Your task to perform on an android device: Do I have any events this weekend? Image 0: 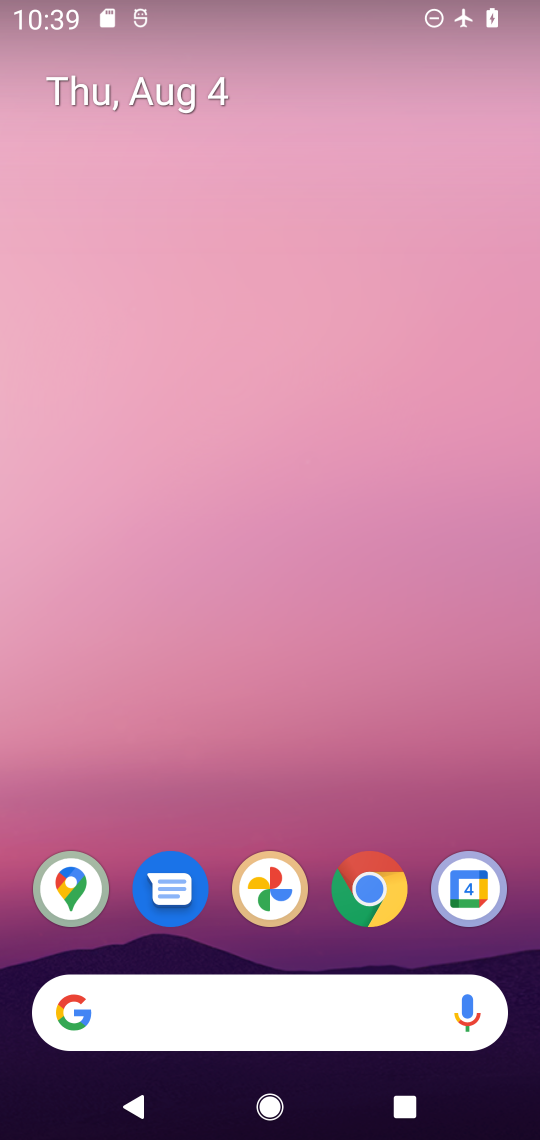
Step 0: press home button
Your task to perform on an android device: Do I have any events this weekend? Image 1: 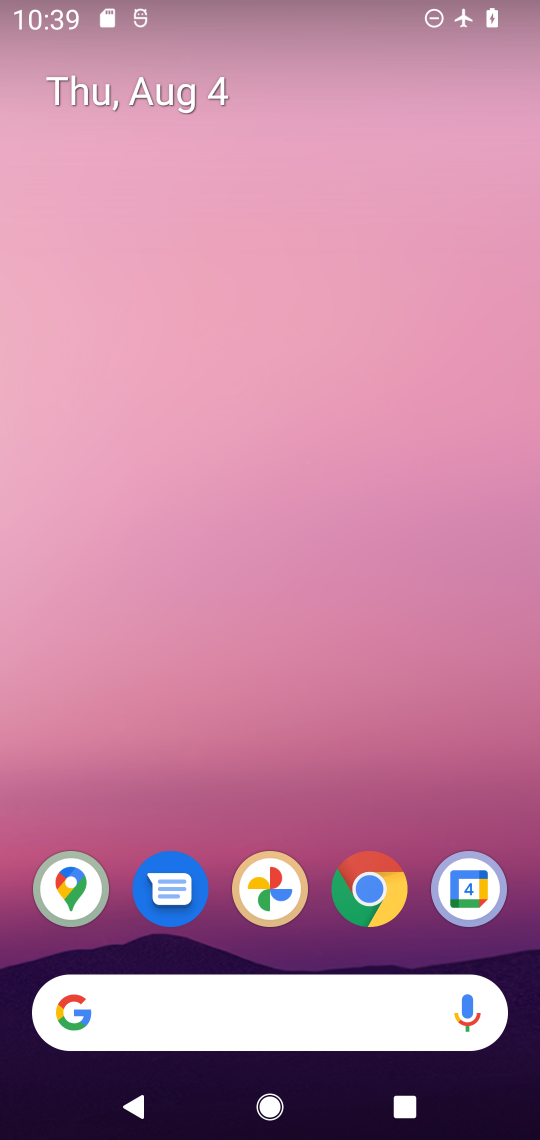
Step 1: drag from (306, 614) to (320, 307)
Your task to perform on an android device: Do I have any events this weekend? Image 2: 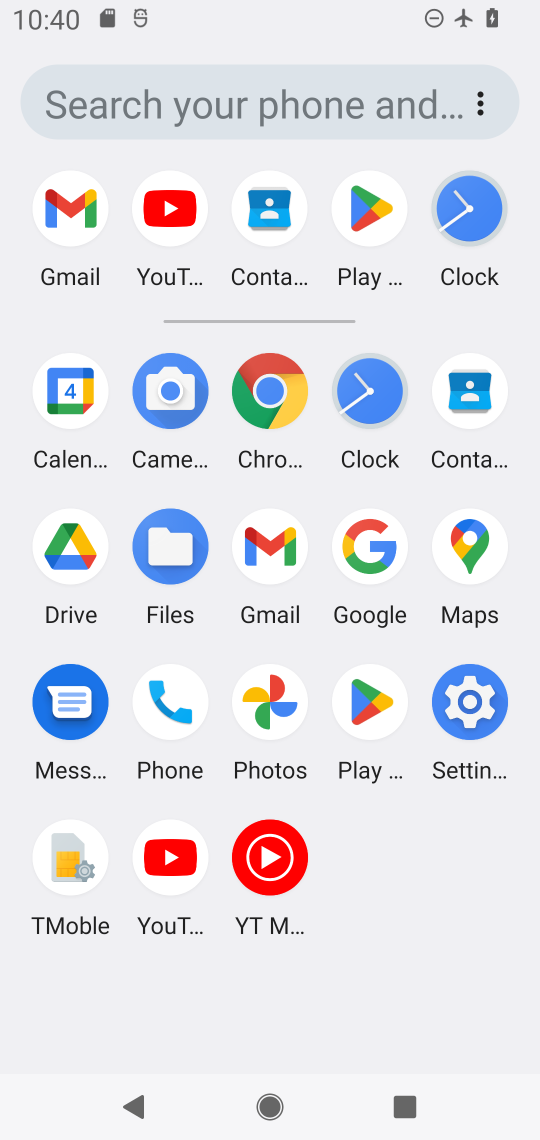
Step 2: click (71, 402)
Your task to perform on an android device: Do I have any events this weekend? Image 3: 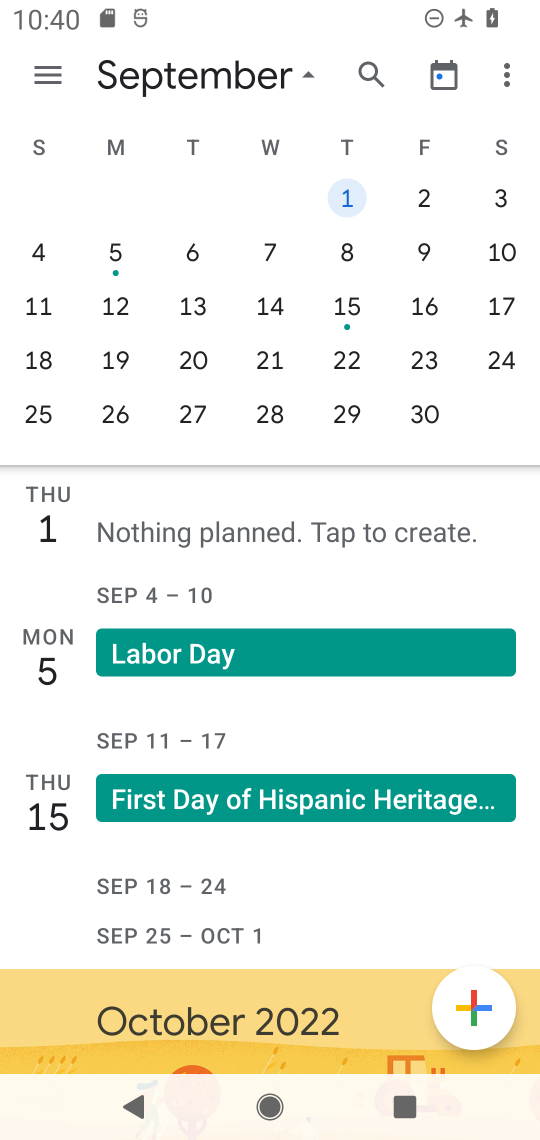
Step 3: task complete